Your task to perform on an android device: toggle notifications settings in the gmail app Image 0: 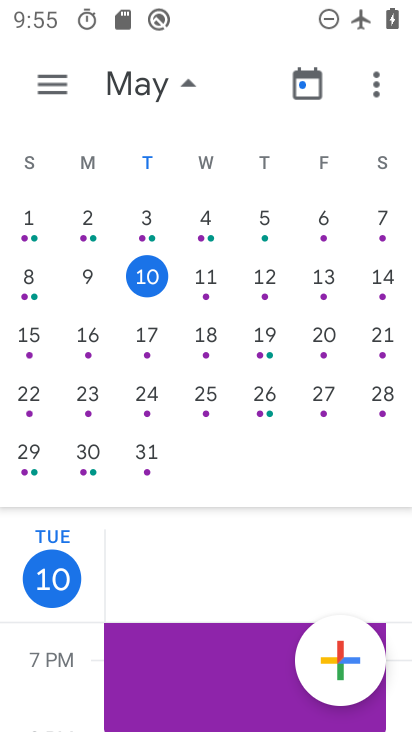
Step 0: press home button
Your task to perform on an android device: toggle notifications settings in the gmail app Image 1: 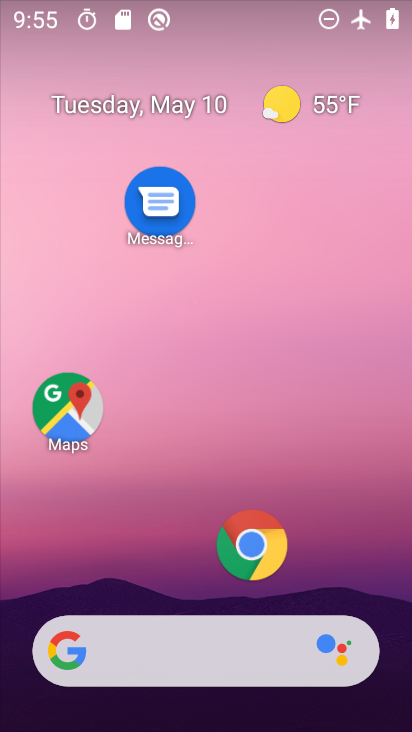
Step 1: drag from (191, 588) to (234, 134)
Your task to perform on an android device: toggle notifications settings in the gmail app Image 2: 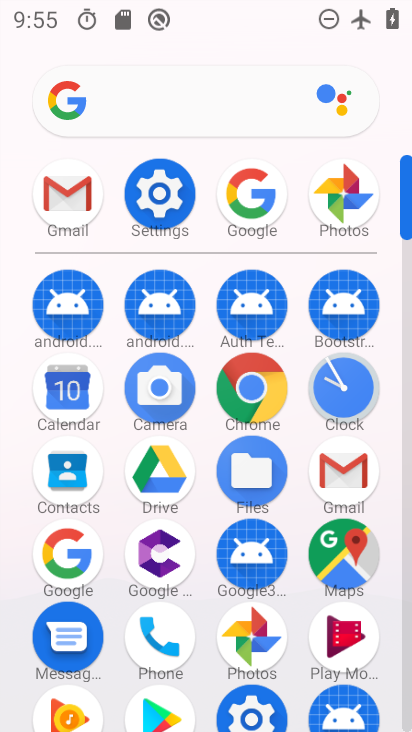
Step 2: click (328, 476)
Your task to perform on an android device: toggle notifications settings in the gmail app Image 3: 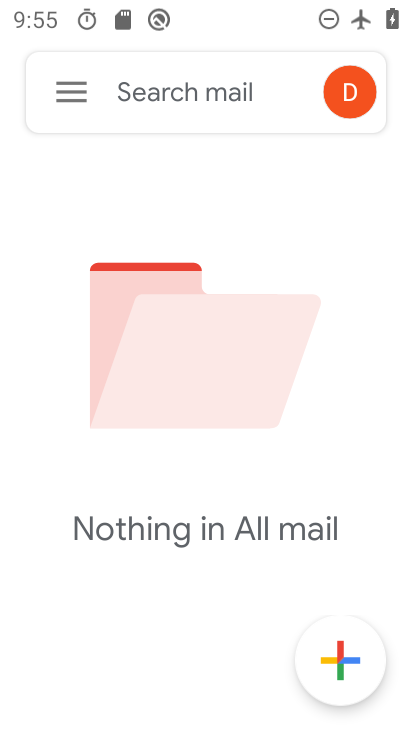
Step 3: click (58, 94)
Your task to perform on an android device: toggle notifications settings in the gmail app Image 4: 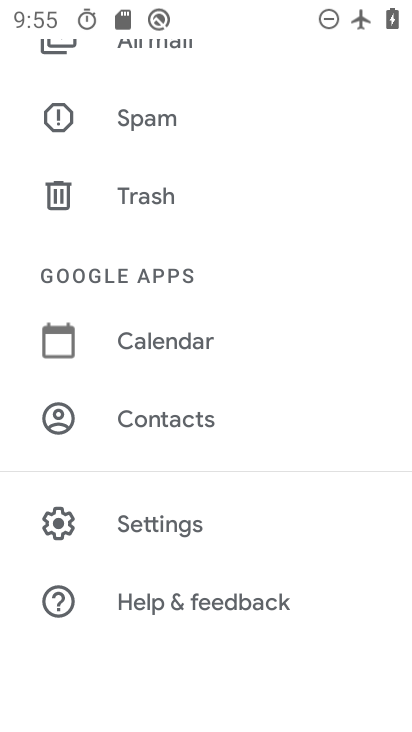
Step 4: click (158, 503)
Your task to perform on an android device: toggle notifications settings in the gmail app Image 5: 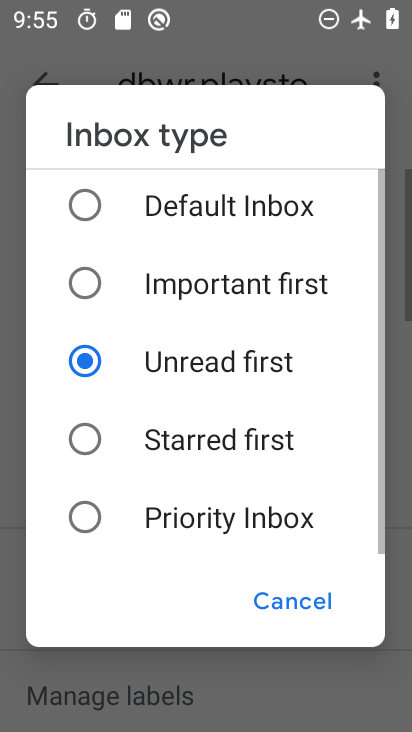
Step 5: click (269, 598)
Your task to perform on an android device: toggle notifications settings in the gmail app Image 6: 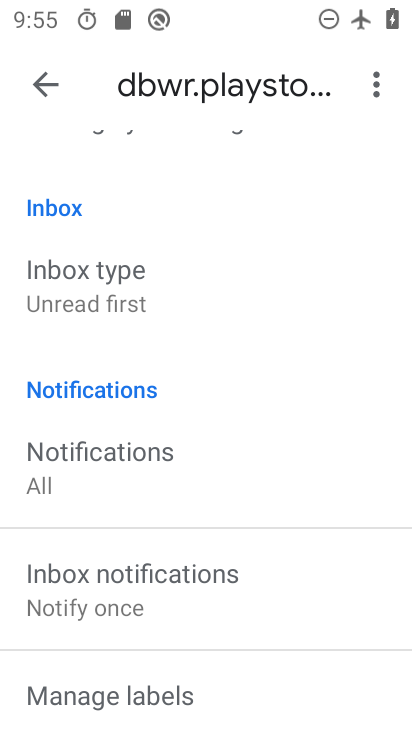
Step 6: drag from (244, 559) to (251, 291)
Your task to perform on an android device: toggle notifications settings in the gmail app Image 7: 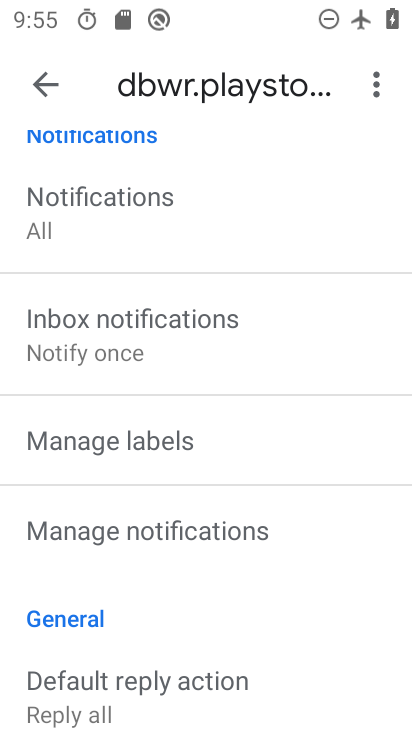
Step 7: click (124, 529)
Your task to perform on an android device: toggle notifications settings in the gmail app Image 8: 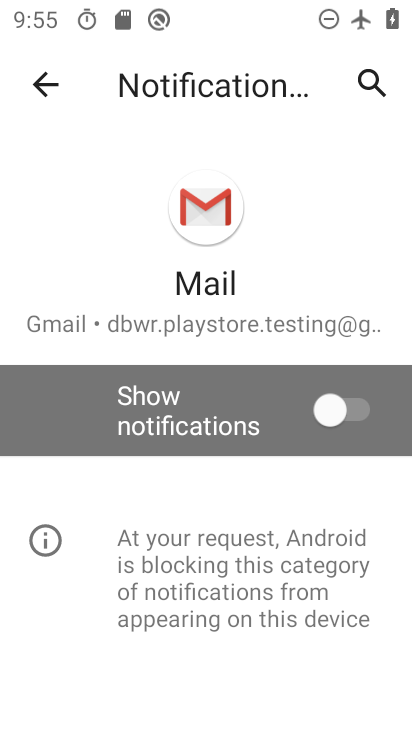
Step 8: drag from (253, 577) to (305, 426)
Your task to perform on an android device: toggle notifications settings in the gmail app Image 9: 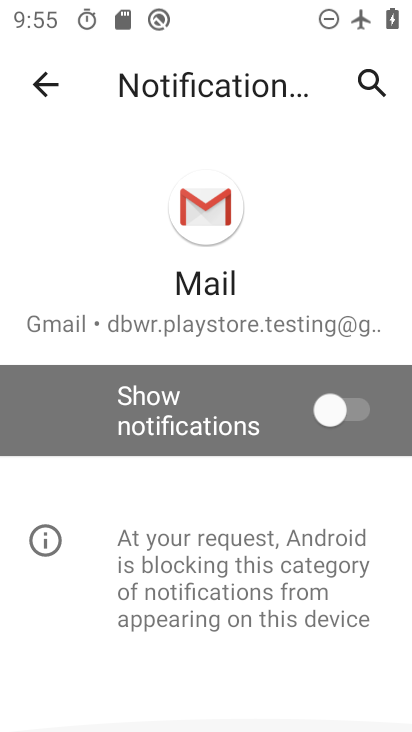
Step 9: click (344, 403)
Your task to perform on an android device: toggle notifications settings in the gmail app Image 10: 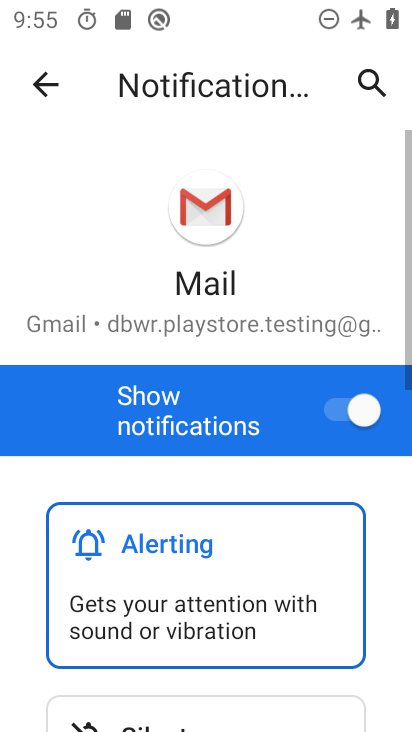
Step 10: task complete